Your task to perform on an android device: Open privacy settings Image 0: 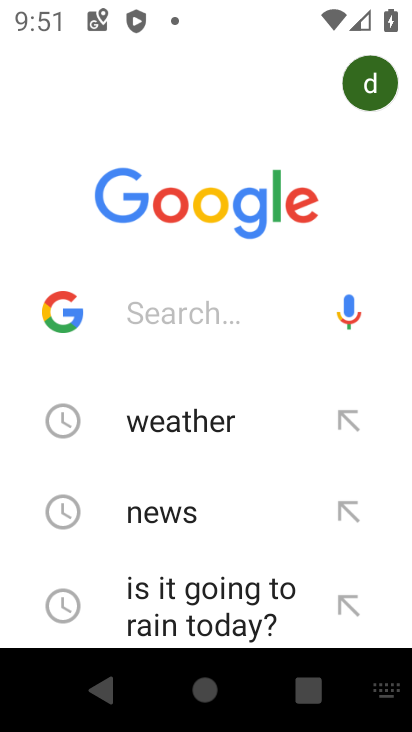
Step 0: press home button
Your task to perform on an android device: Open privacy settings Image 1: 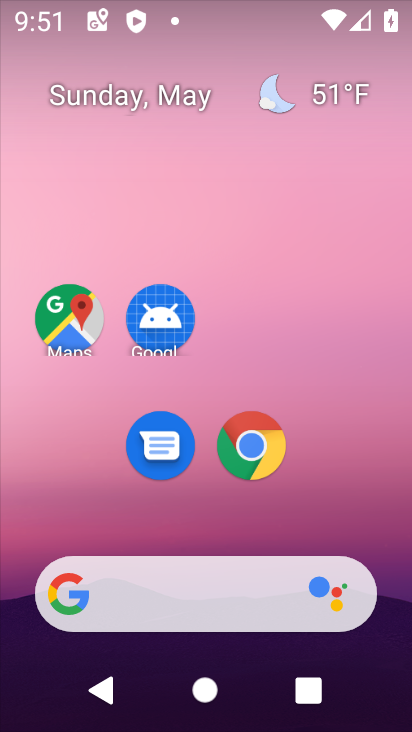
Step 1: drag from (331, 523) to (219, 12)
Your task to perform on an android device: Open privacy settings Image 2: 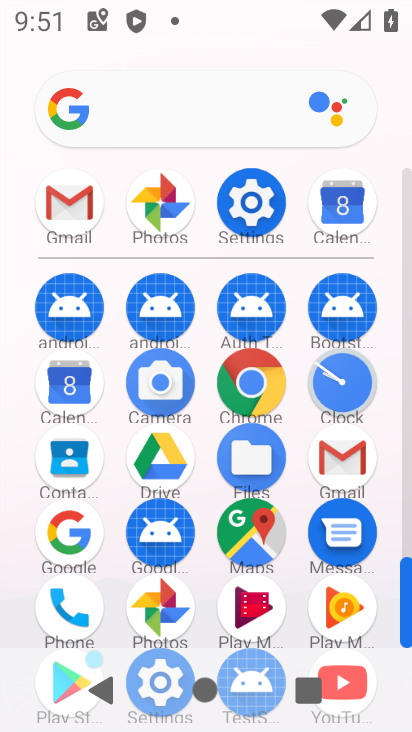
Step 2: click (258, 202)
Your task to perform on an android device: Open privacy settings Image 3: 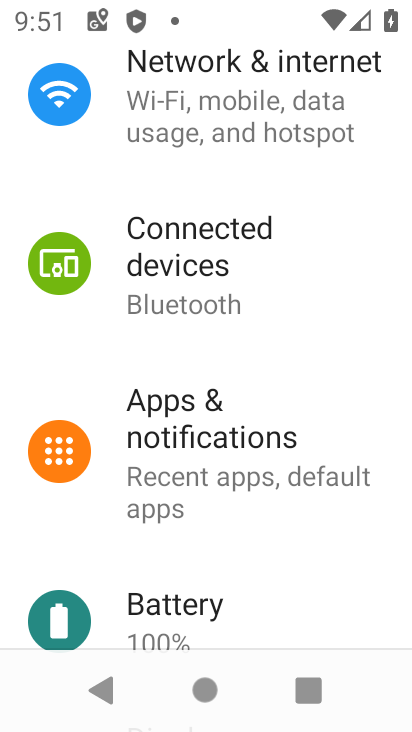
Step 3: drag from (268, 375) to (210, 66)
Your task to perform on an android device: Open privacy settings Image 4: 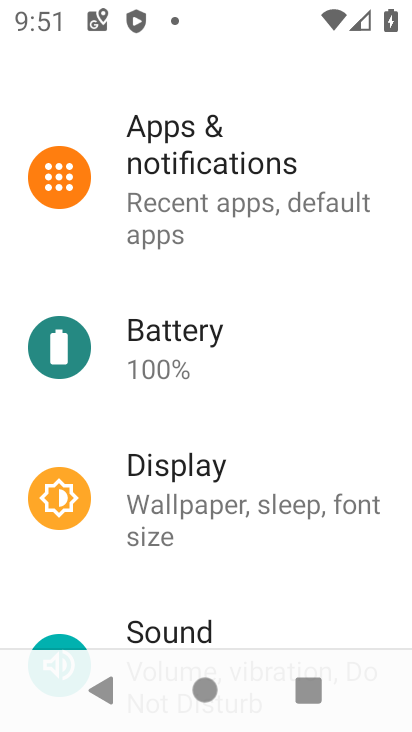
Step 4: drag from (218, 532) to (150, 137)
Your task to perform on an android device: Open privacy settings Image 5: 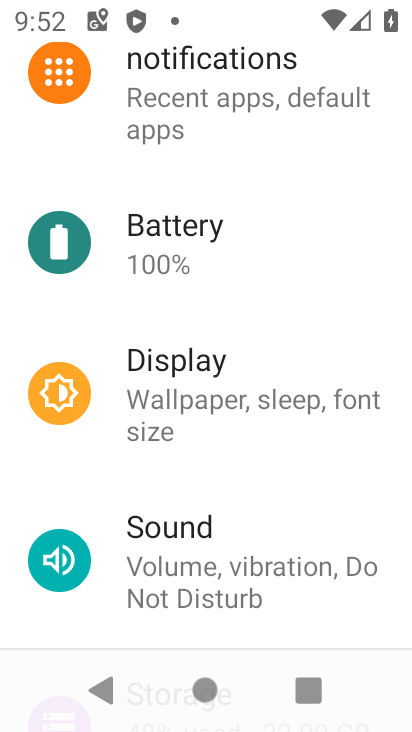
Step 5: drag from (279, 500) to (249, 223)
Your task to perform on an android device: Open privacy settings Image 6: 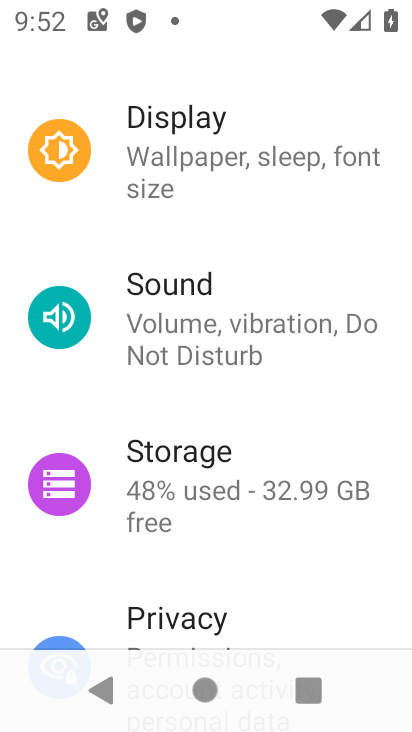
Step 6: drag from (218, 394) to (198, 222)
Your task to perform on an android device: Open privacy settings Image 7: 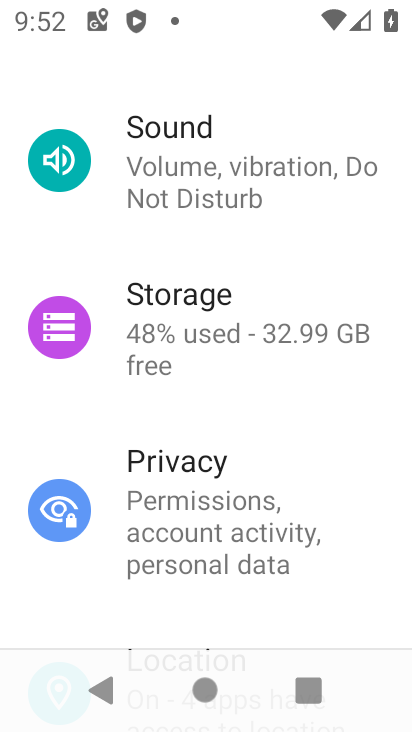
Step 7: click (160, 450)
Your task to perform on an android device: Open privacy settings Image 8: 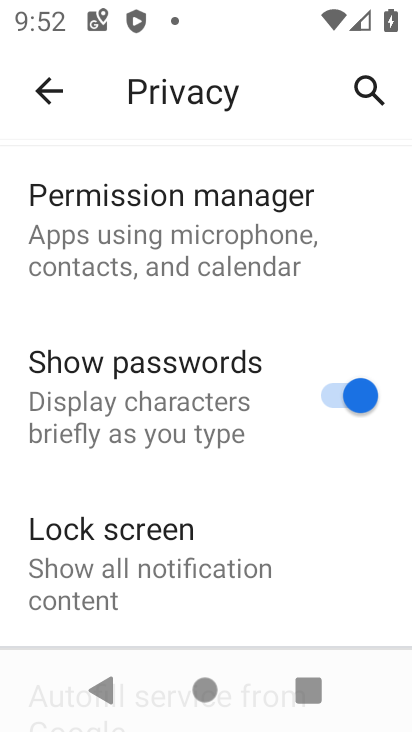
Step 8: task complete